Your task to perform on an android device: turn off improve location accuracy Image 0: 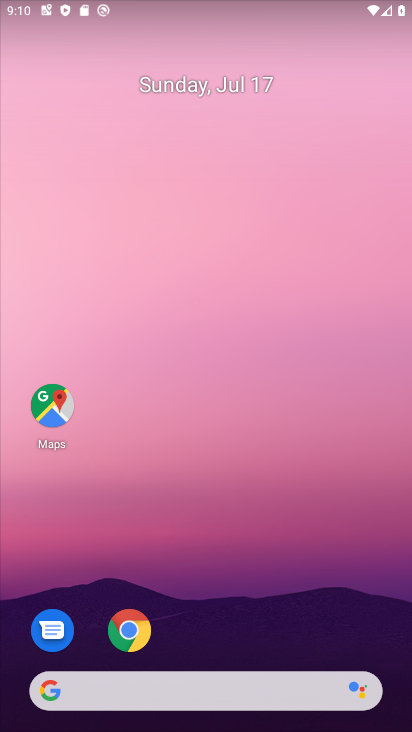
Step 0: drag from (249, 671) to (332, 7)
Your task to perform on an android device: turn off improve location accuracy Image 1: 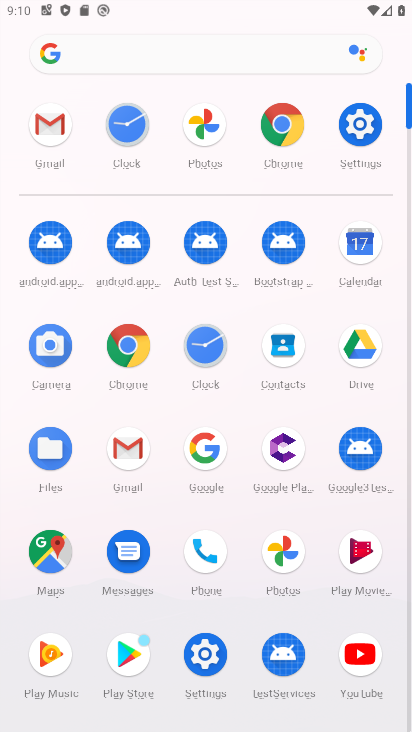
Step 1: click (360, 127)
Your task to perform on an android device: turn off improve location accuracy Image 2: 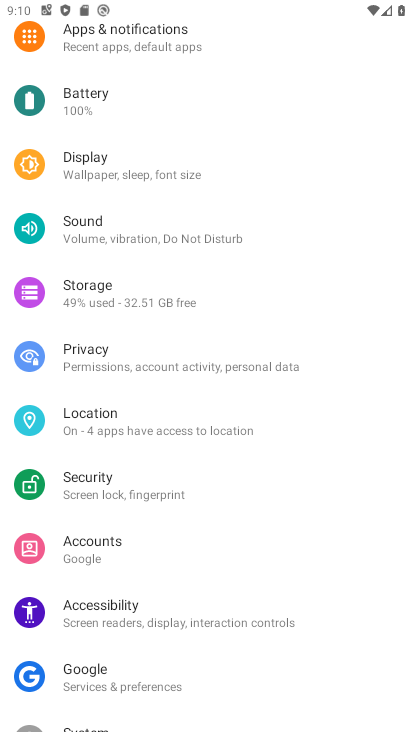
Step 2: click (129, 419)
Your task to perform on an android device: turn off improve location accuracy Image 3: 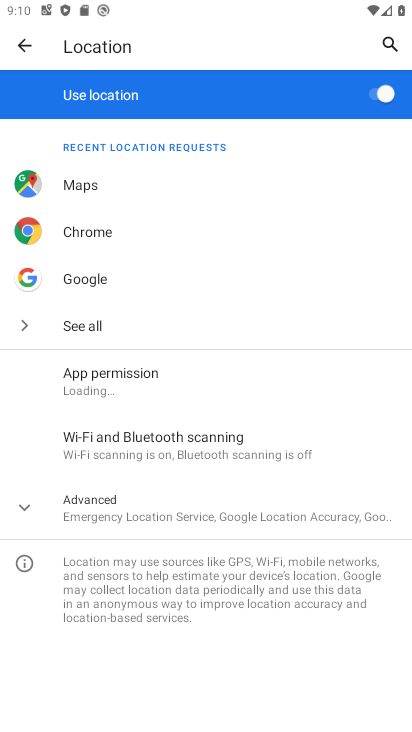
Step 3: click (156, 507)
Your task to perform on an android device: turn off improve location accuracy Image 4: 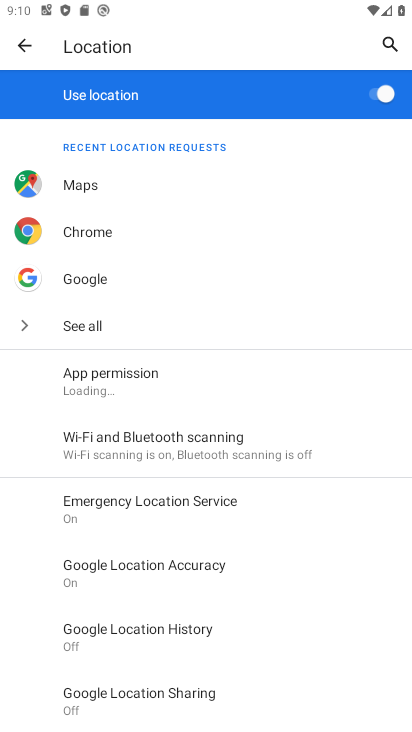
Step 4: click (168, 575)
Your task to perform on an android device: turn off improve location accuracy Image 5: 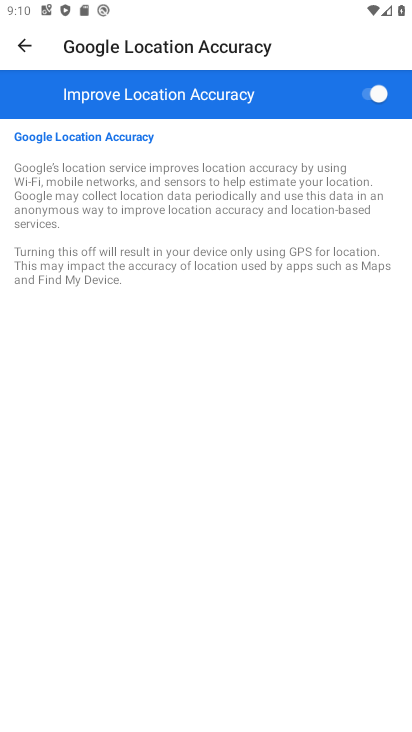
Step 5: click (367, 99)
Your task to perform on an android device: turn off improve location accuracy Image 6: 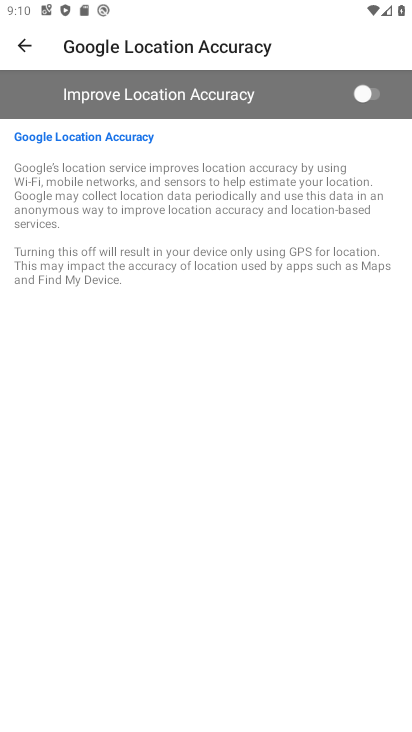
Step 6: task complete